Your task to perform on an android device: delete the emails in spam in the gmail app Image 0: 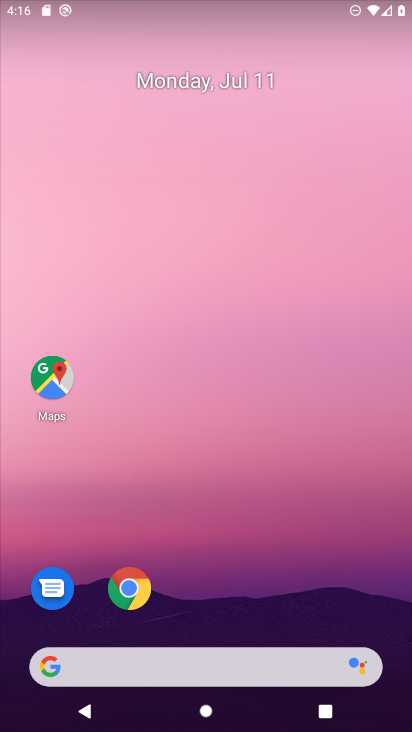
Step 0: drag from (144, 714) to (166, 4)
Your task to perform on an android device: delete the emails in spam in the gmail app Image 1: 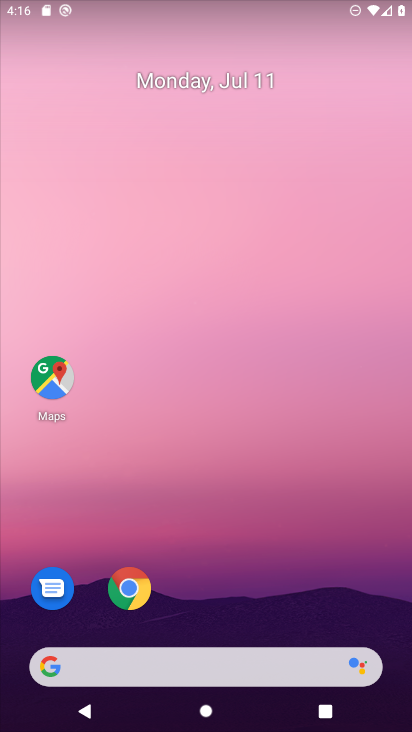
Step 1: drag from (139, 699) to (281, 28)
Your task to perform on an android device: delete the emails in spam in the gmail app Image 2: 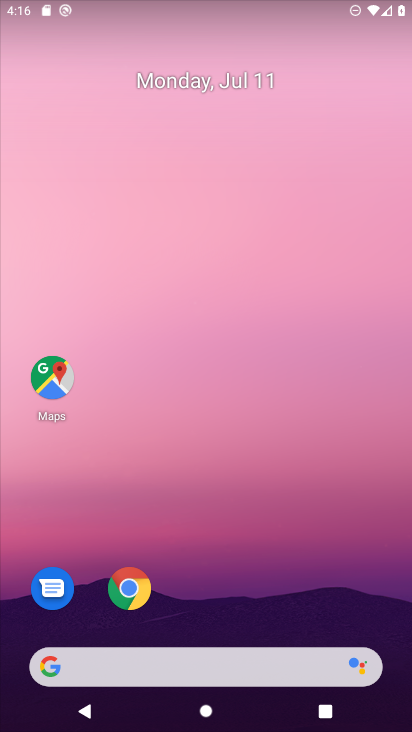
Step 2: drag from (120, 670) to (247, 0)
Your task to perform on an android device: delete the emails in spam in the gmail app Image 3: 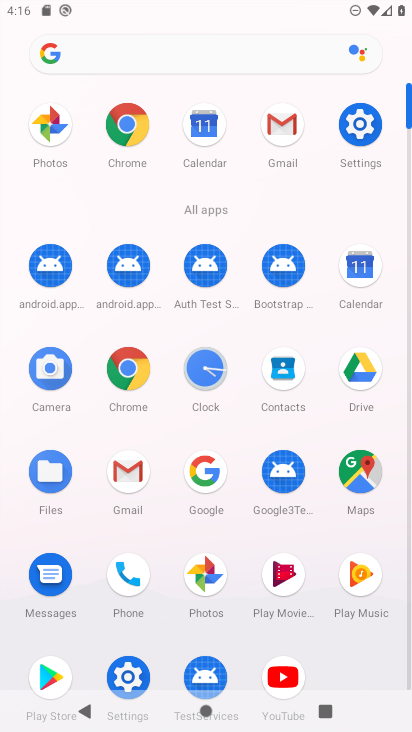
Step 3: drag from (362, 649) to (269, 5)
Your task to perform on an android device: delete the emails in spam in the gmail app Image 4: 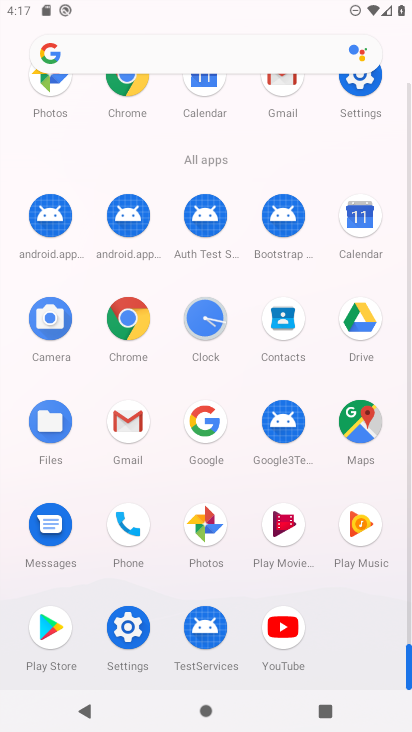
Step 4: click (113, 429)
Your task to perform on an android device: delete the emails in spam in the gmail app Image 5: 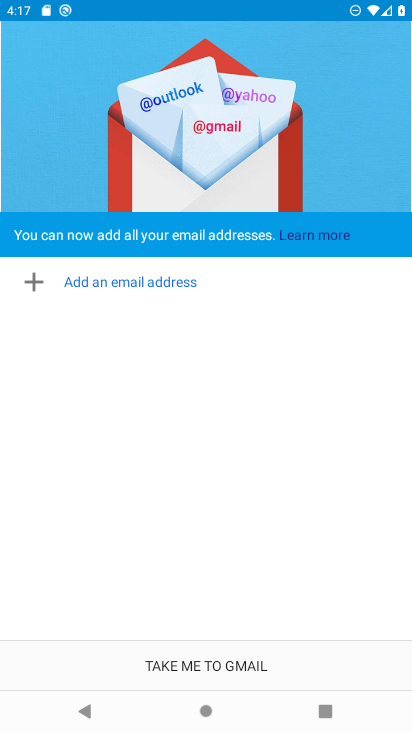
Step 5: task complete